Your task to perform on an android device: check google app version Image 0: 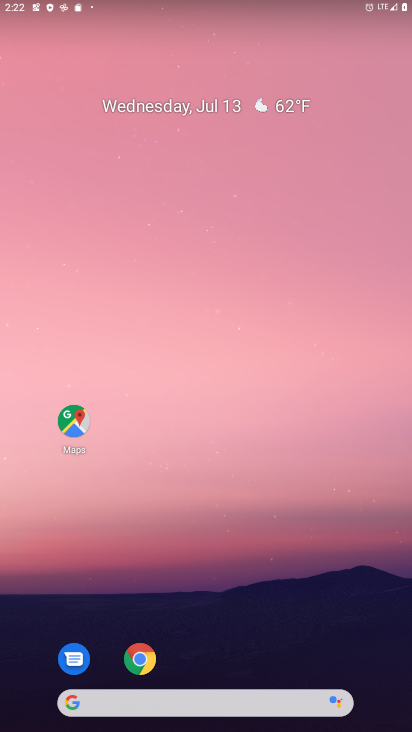
Step 0: drag from (186, 632) to (151, 175)
Your task to perform on an android device: check google app version Image 1: 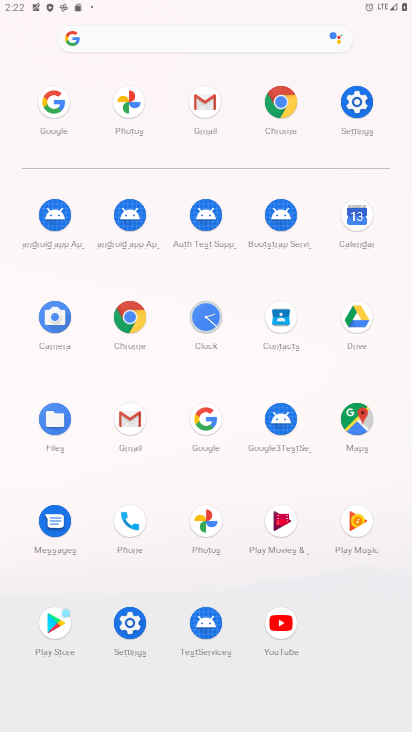
Step 1: click (202, 423)
Your task to perform on an android device: check google app version Image 2: 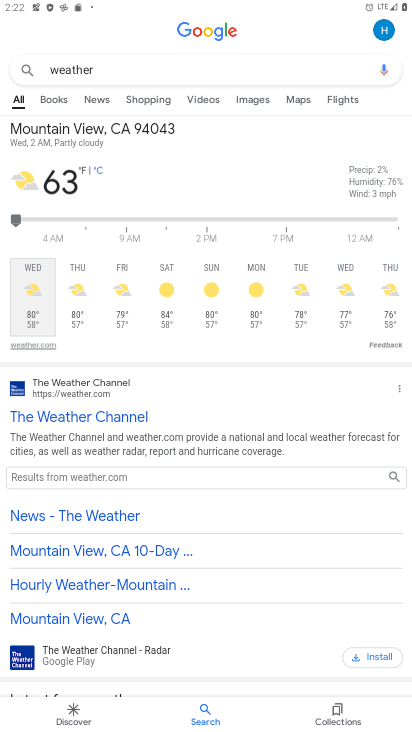
Step 2: click (385, 26)
Your task to perform on an android device: check google app version Image 3: 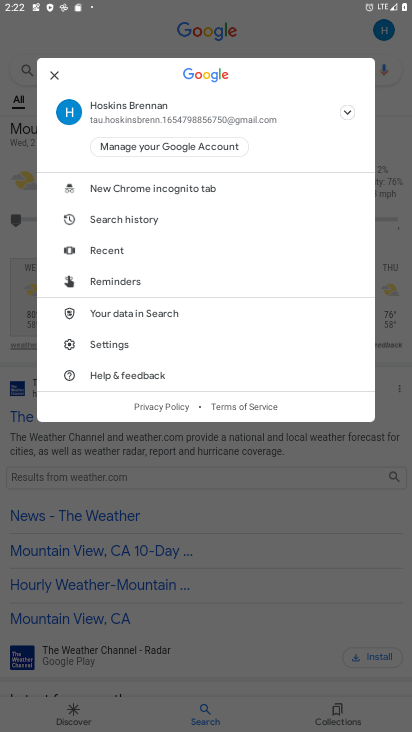
Step 3: click (100, 344)
Your task to perform on an android device: check google app version Image 4: 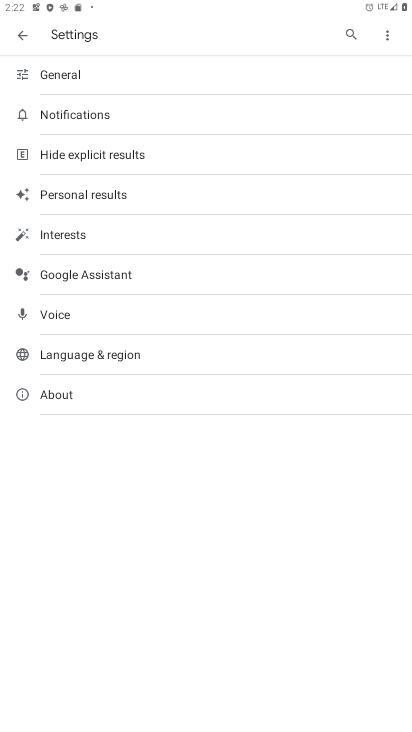
Step 4: click (54, 393)
Your task to perform on an android device: check google app version Image 5: 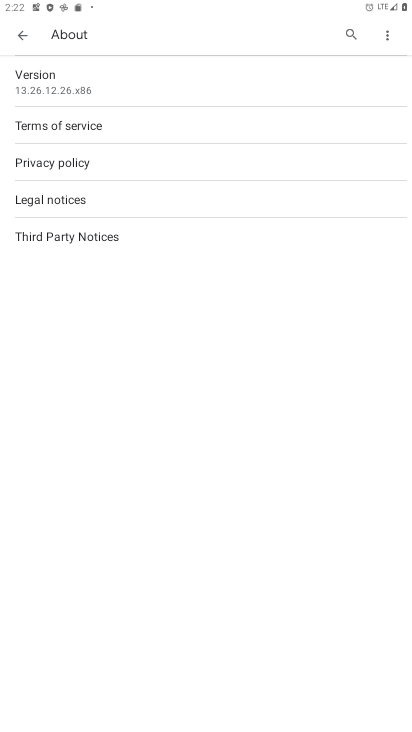
Step 5: task complete